Your task to perform on an android device: uninstall "Facebook Messenger" Image 0: 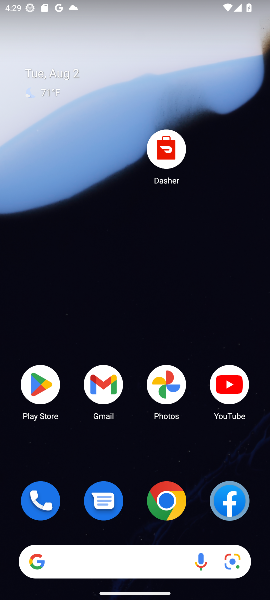
Step 0: click (39, 386)
Your task to perform on an android device: uninstall "Facebook Messenger" Image 1: 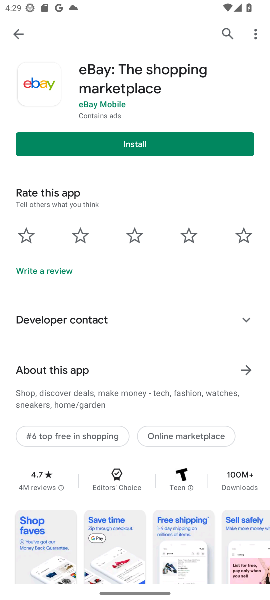
Step 1: click (224, 36)
Your task to perform on an android device: uninstall "Facebook Messenger" Image 2: 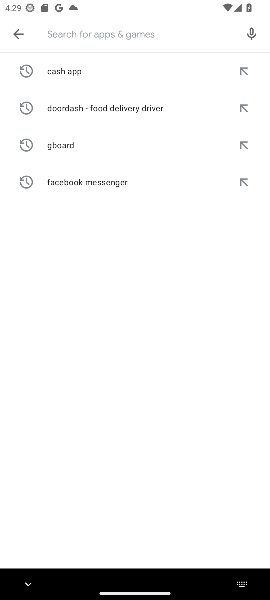
Step 2: type "Facebook Messenger"
Your task to perform on an android device: uninstall "Facebook Messenger" Image 3: 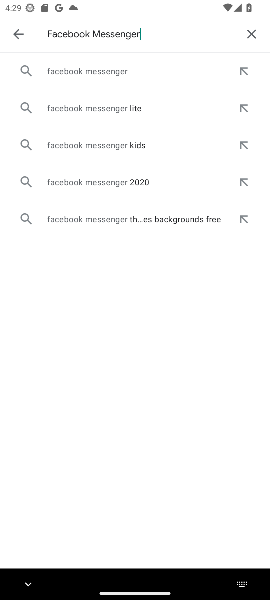
Step 3: click (62, 71)
Your task to perform on an android device: uninstall "Facebook Messenger" Image 4: 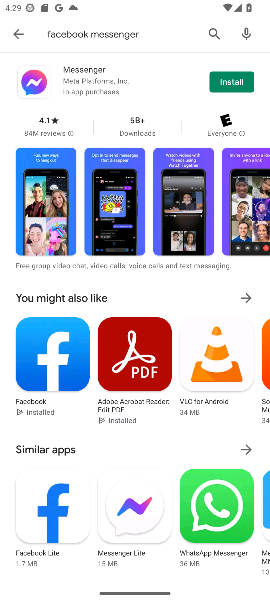
Step 4: task complete